Your task to perform on an android device: turn off smart reply in the gmail app Image 0: 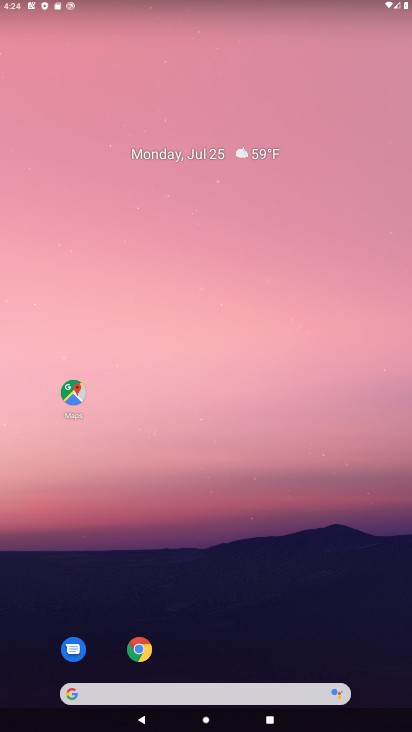
Step 0: drag from (225, 686) to (263, 0)
Your task to perform on an android device: turn off smart reply in the gmail app Image 1: 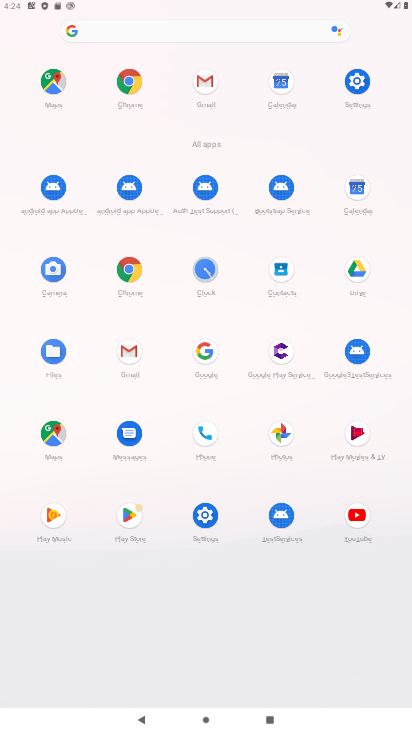
Step 1: click (210, 87)
Your task to perform on an android device: turn off smart reply in the gmail app Image 2: 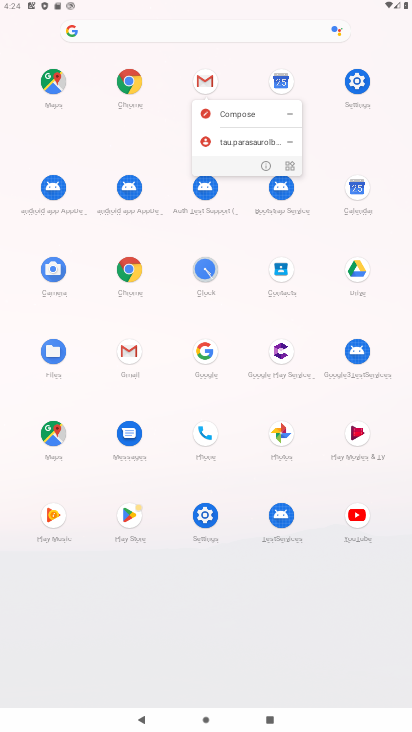
Step 2: click (210, 86)
Your task to perform on an android device: turn off smart reply in the gmail app Image 3: 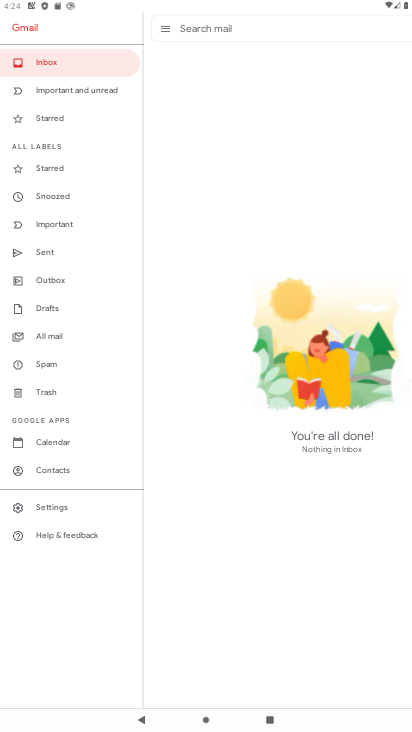
Step 3: click (56, 506)
Your task to perform on an android device: turn off smart reply in the gmail app Image 4: 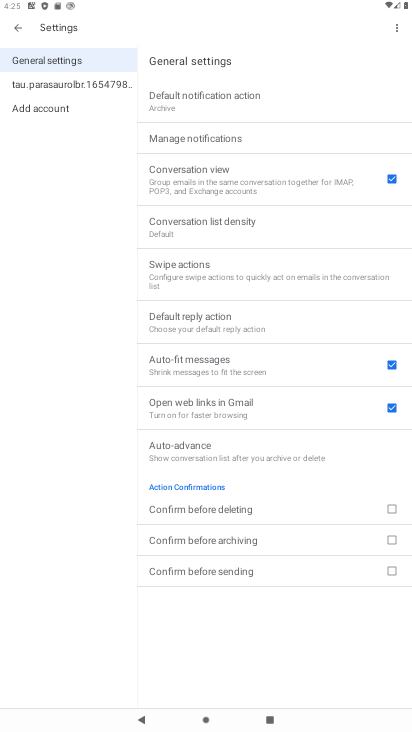
Step 4: click (42, 86)
Your task to perform on an android device: turn off smart reply in the gmail app Image 5: 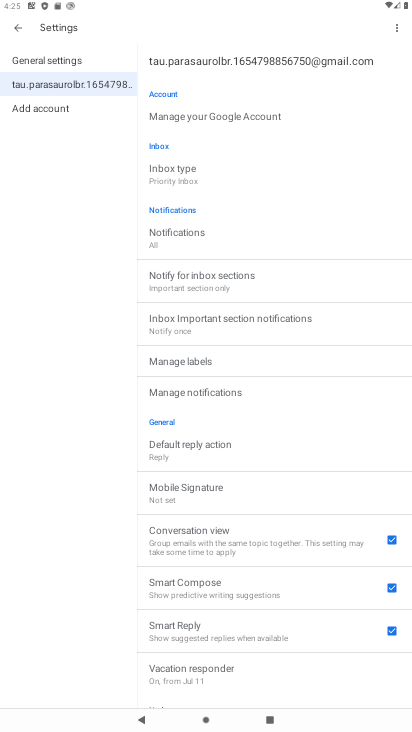
Step 5: drag from (254, 638) to (336, 158)
Your task to perform on an android device: turn off smart reply in the gmail app Image 6: 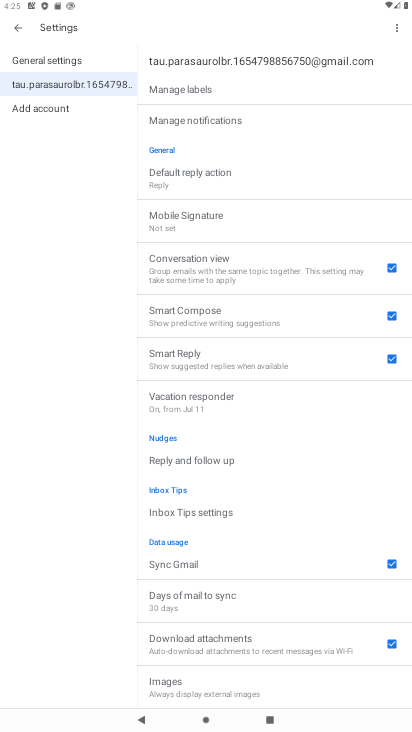
Step 6: drag from (265, 653) to (325, 251)
Your task to perform on an android device: turn off smart reply in the gmail app Image 7: 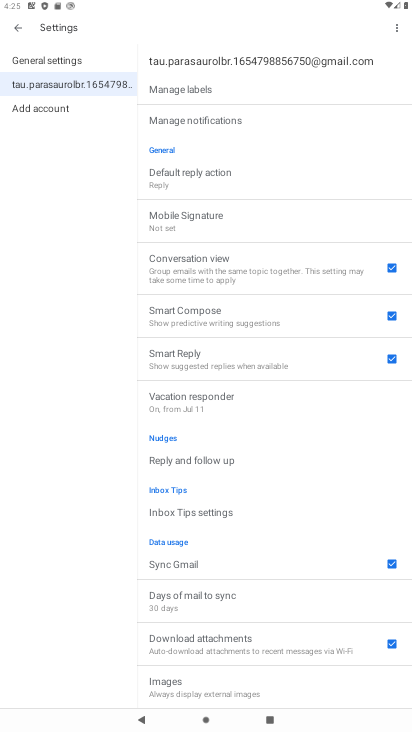
Step 7: drag from (270, 289) to (329, 694)
Your task to perform on an android device: turn off smart reply in the gmail app Image 8: 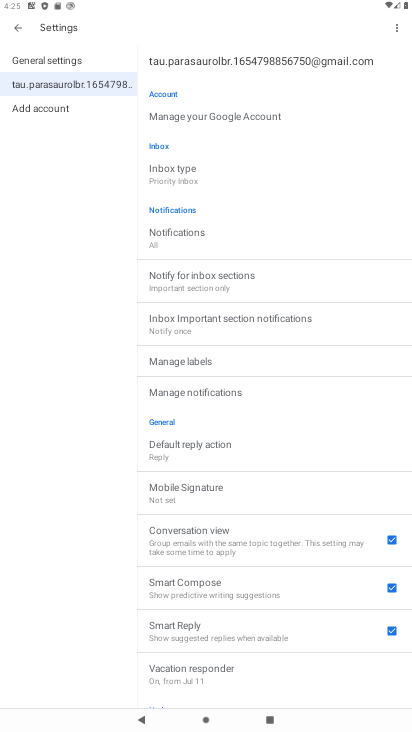
Step 8: drag from (250, 659) to (314, 200)
Your task to perform on an android device: turn off smart reply in the gmail app Image 9: 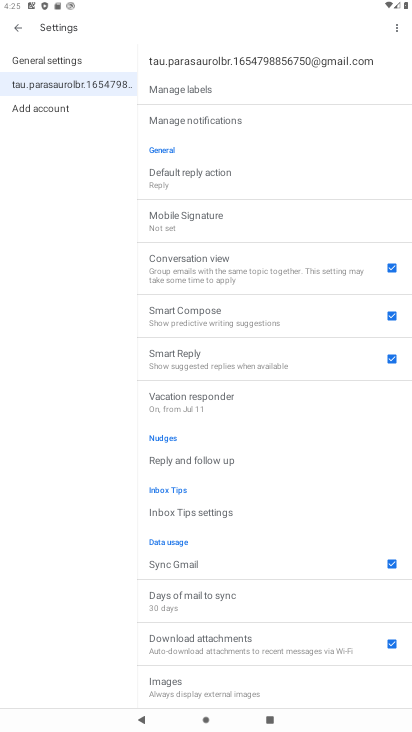
Step 9: click (399, 361)
Your task to perform on an android device: turn off smart reply in the gmail app Image 10: 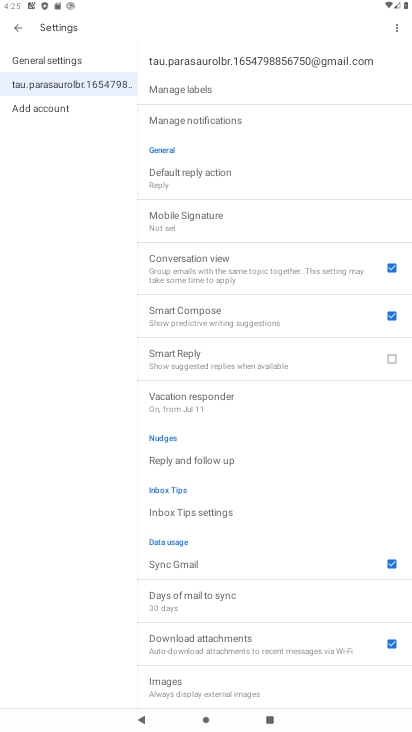
Step 10: task complete